Your task to perform on an android device: Open Chrome and go to settings Image 0: 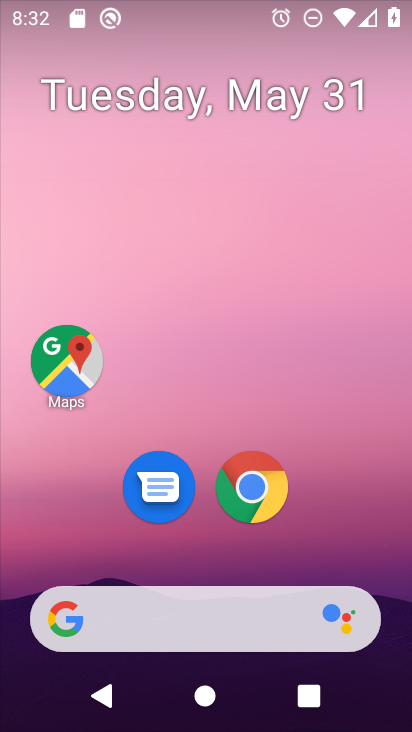
Step 0: click (276, 496)
Your task to perform on an android device: Open Chrome and go to settings Image 1: 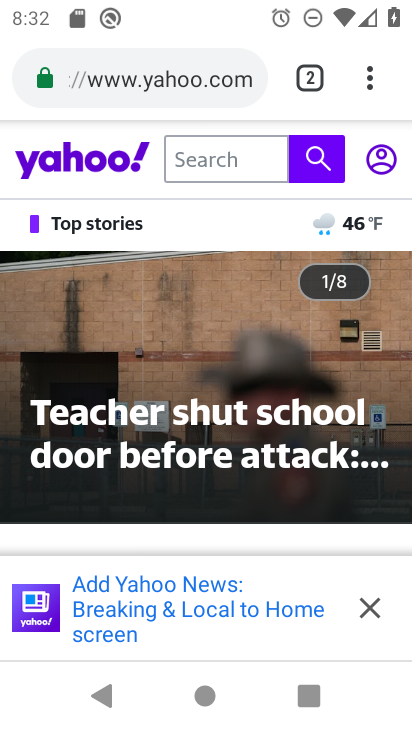
Step 1: click (382, 74)
Your task to perform on an android device: Open Chrome and go to settings Image 2: 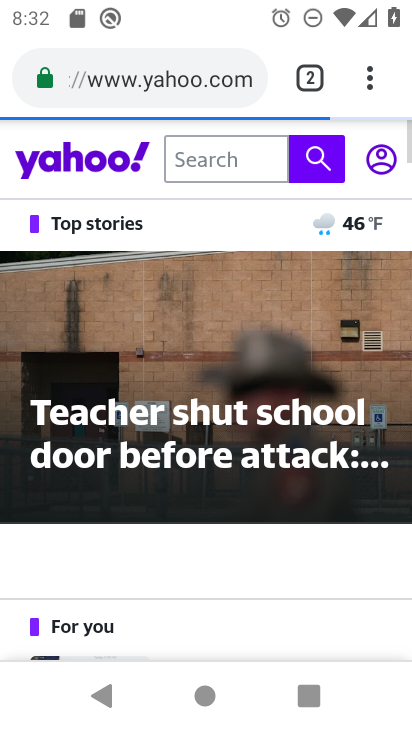
Step 2: click (378, 95)
Your task to perform on an android device: Open Chrome and go to settings Image 3: 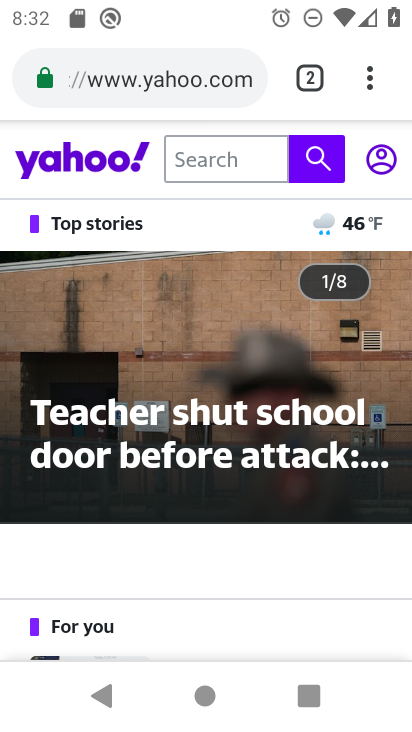
Step 3: click (367, 85)
Your task to perform on an android device: Open Chrome and go to settings Image 4: 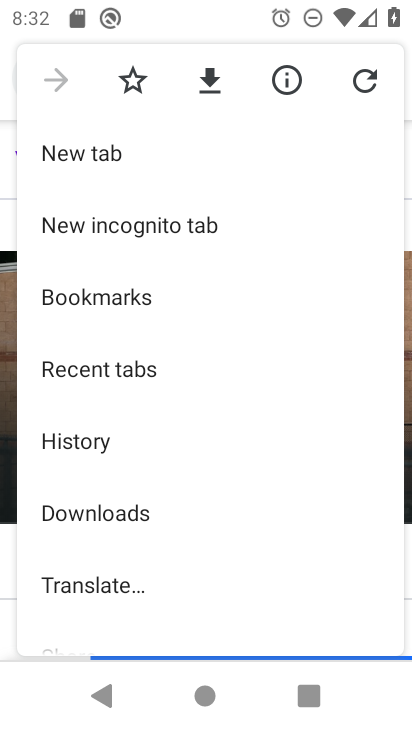
Step 4: drag from (124, 593) to (231, 258)
Your task to perform on an android device: Open Chrome and go to settings Image 5: 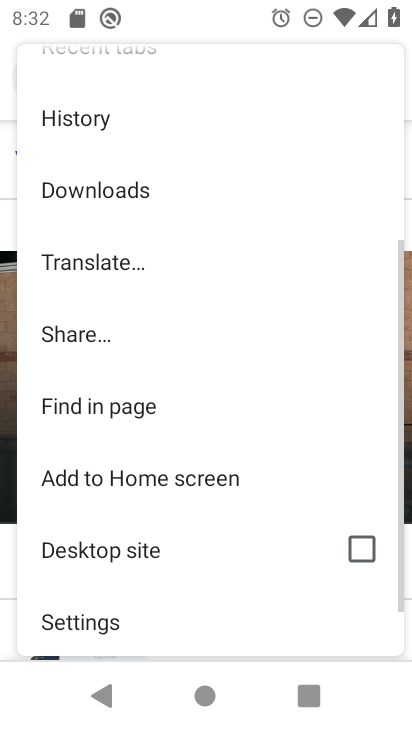
Step 5: click (108, 628)
Your task to perform on an android device: Open Chrome and go to settings Image 6: 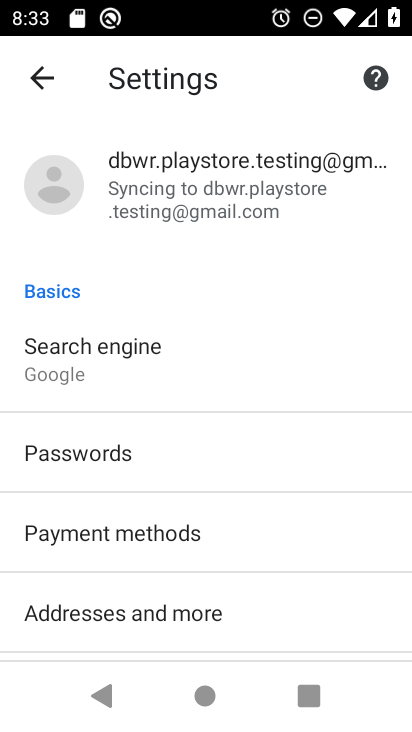
Step 6: task complete